Your task to perform on an android device: change the clock display to analog Image 0: 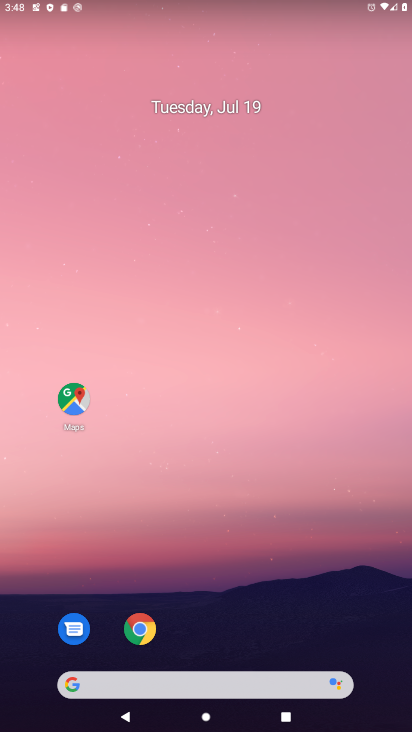
Step 0: drag from (171, 663) to (233, 305)
Your task to perform on an android device: change the clock display to analog Image 1: 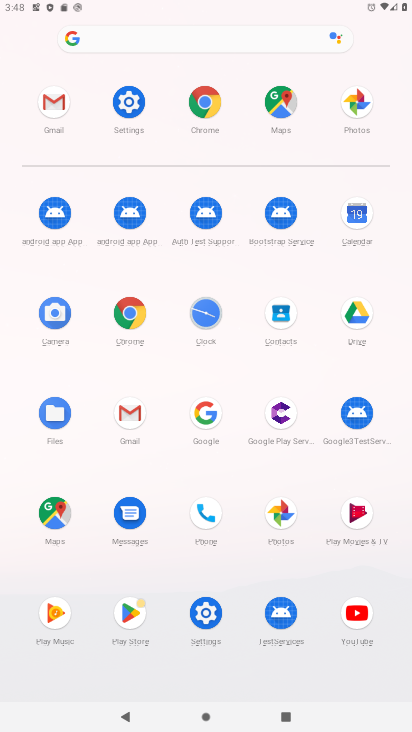
Step 1: click (199, 306)
Your task to perform on an android device: change the clock display to analog Image 2: 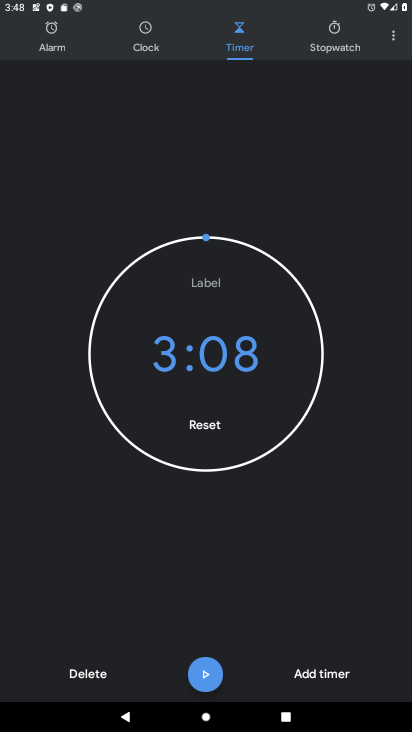
Step 2: click (397, 34)
Your task to perform on an android device: change the clock display to analog Image 3: 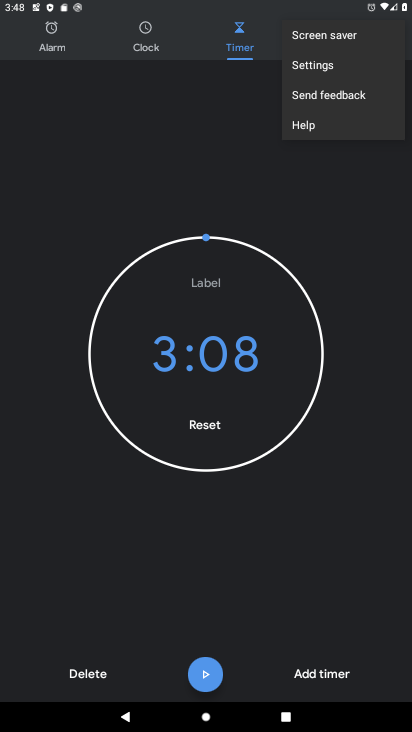
Step 3: click (321, 58)
Your task to perform on an android device: change the clock display to analog Image 4: 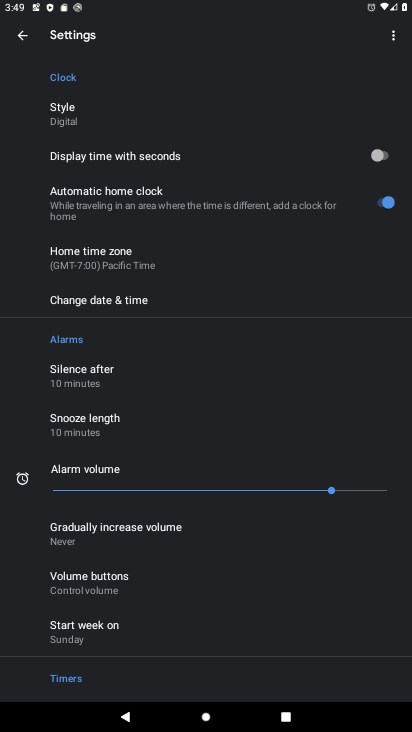
Step 4: click (52, 110)
Your task to perform on an android device: change the clock display to analog Image 5: 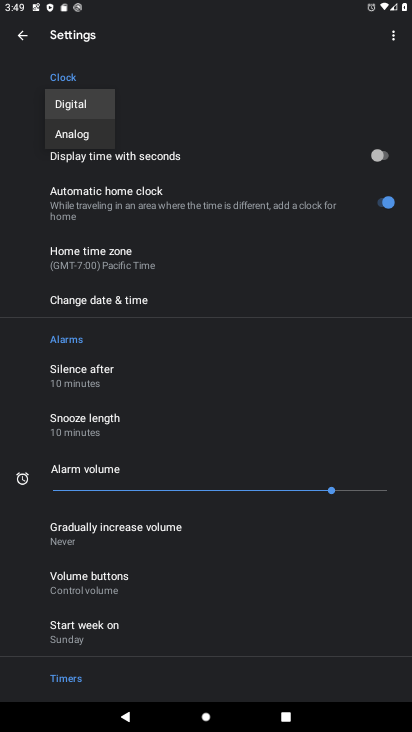
Step 5: click (92, 136)
Your task to perform on an android device: change the clock display to analog Image 6: 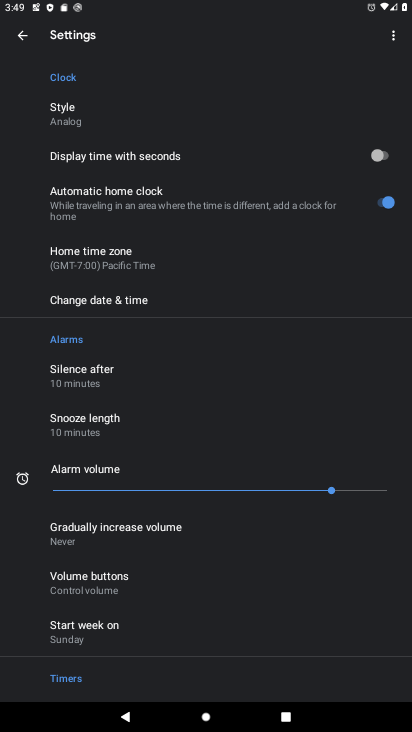
Step 6: task complete